Your task to perform on an android device: check data usage Image 0: 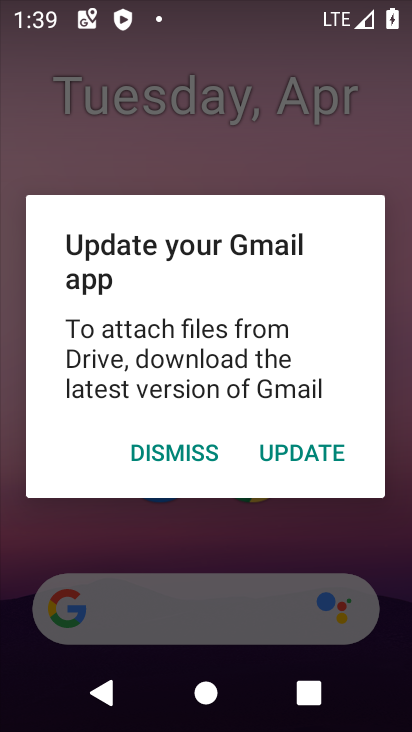
Step 0: press home button
Your task to perform on an android device: check data usage Image 1: 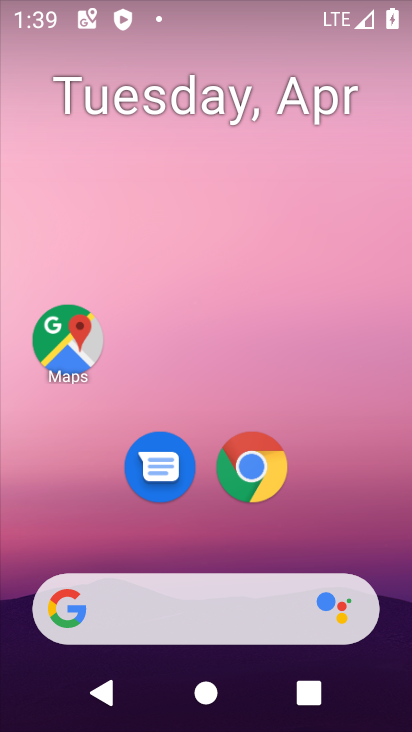
Step 1: drag from (387, 537) to (385, 168)
Your task to perform on an android device: check data usage Image 2: 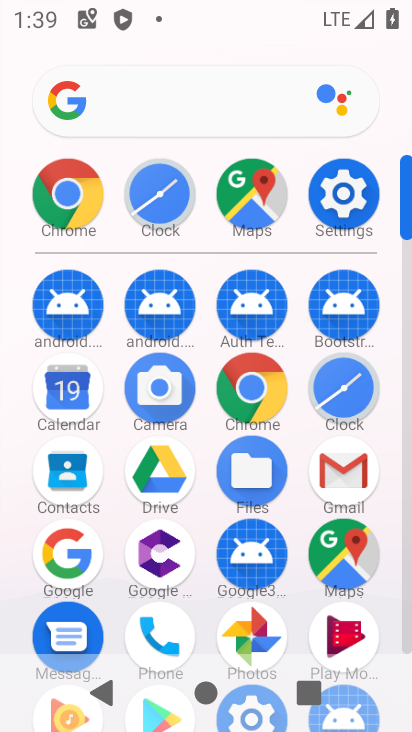
Step 2: click (337, 203)
Your task to perform on an android device: check data usage Image 3: 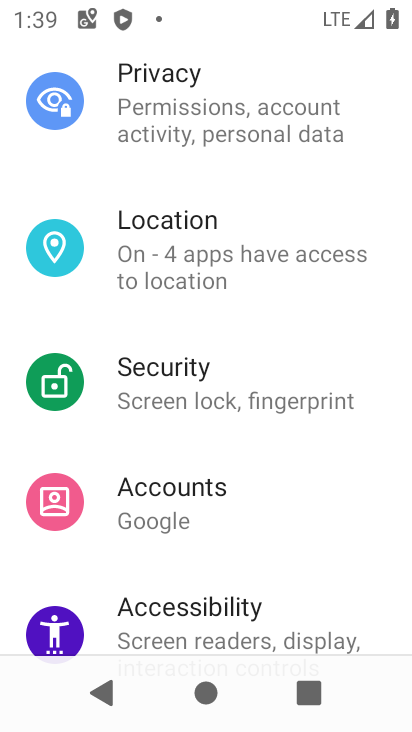
Step 3: drag from (382, 290) to (377, 432)
Your task to perform on an android device: check data usage Image 4: 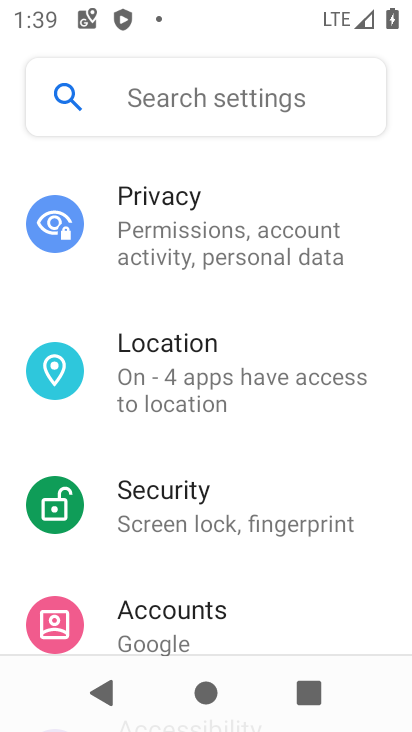
Step 4: drag from (383, 237) to (377, 467)
Your task to perform on an android device: check data usage Image 5: 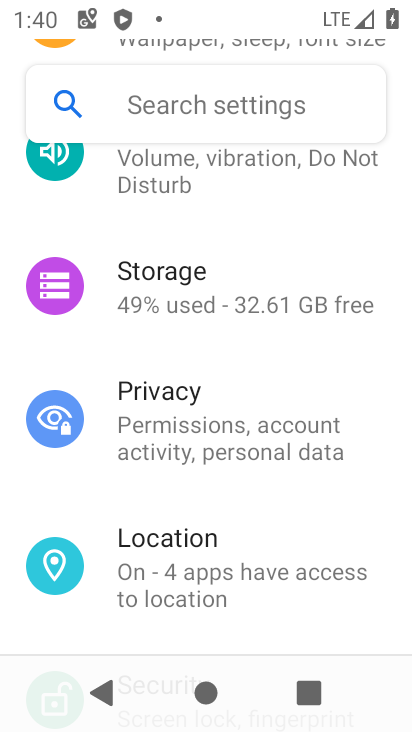
Step 5: drag from (384, 234) to (380, 449)
Your task to perform on an android device: check data usage Image 6: 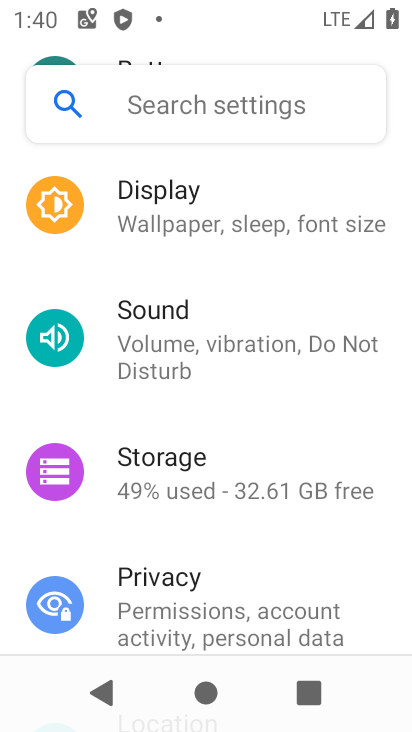
Step 6: drag from (394, 178) to (376, 362)
Your task to perform on an android device: check data usage Image 7: 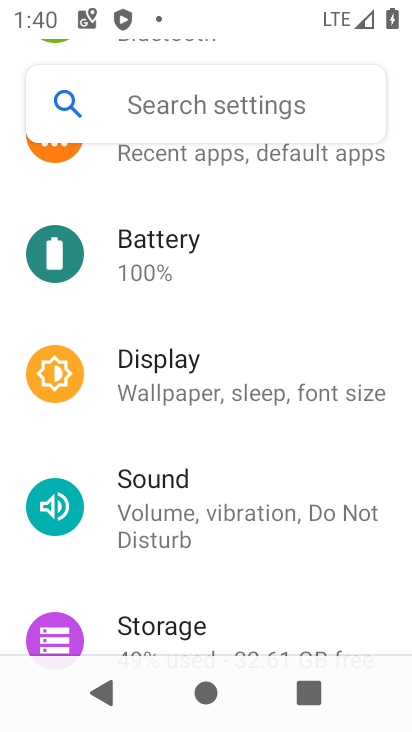
Step 7: drag from (397, 176) to (387, 369)
Your task to perform on an android device: check data usage Image 8: 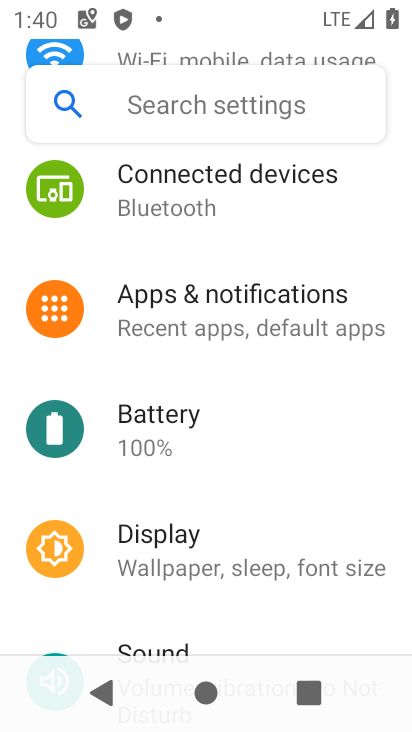
Step 8: drag from (399, 189) to (385, 425)
Your task to perform on an android device: check data usage Image 9: 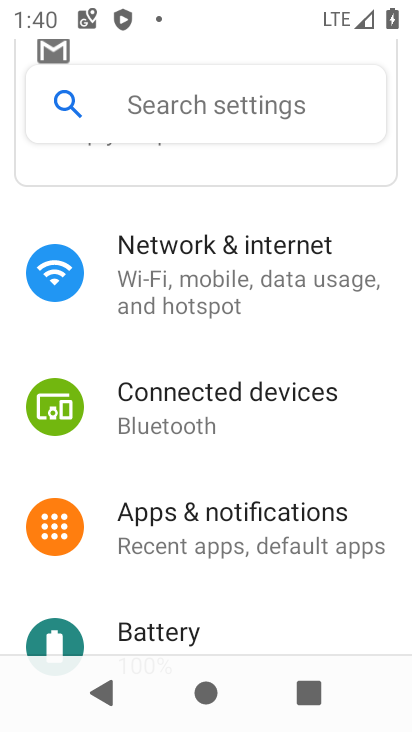
Step 9: click (240, 260)
Your task to perform on an android device: check data usage Image 10: 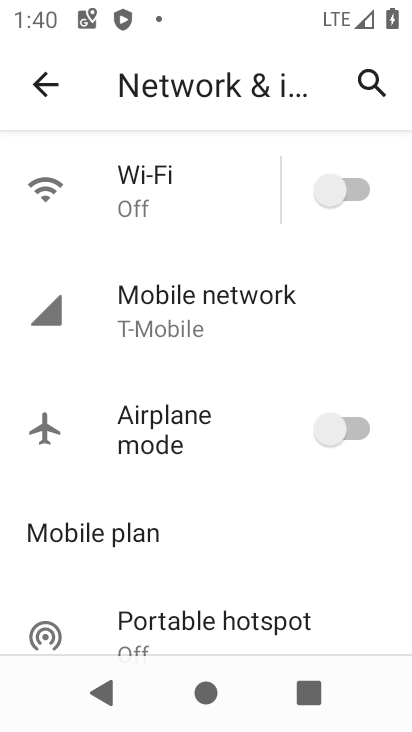
Step 10: drag from (264, 512) to (273, 297)
Your task to perform on an android device: check data usage Image 11: 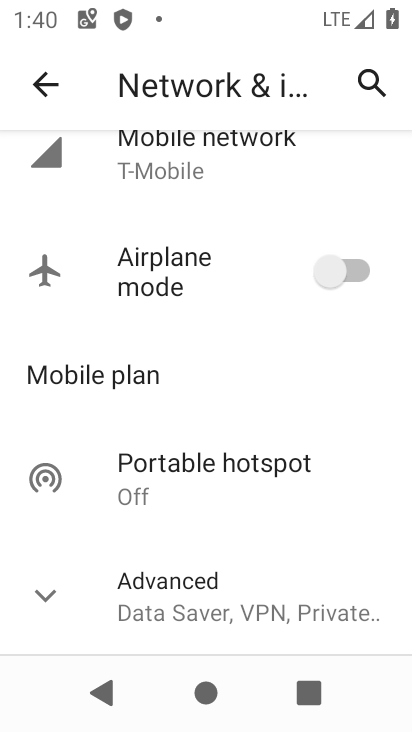
Step 11: click (200, 136)
Your task to perform on an android device: check data usage Image 12: 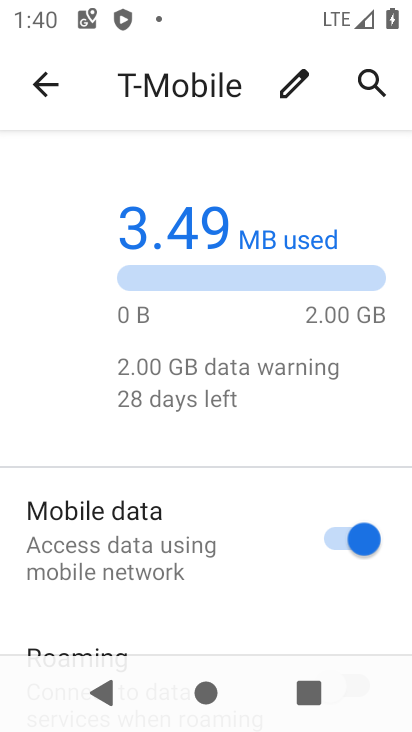
Step 12: drag from (256, 591) to (249, 301)
Your task to perform on an android device: check data usage Image 13: 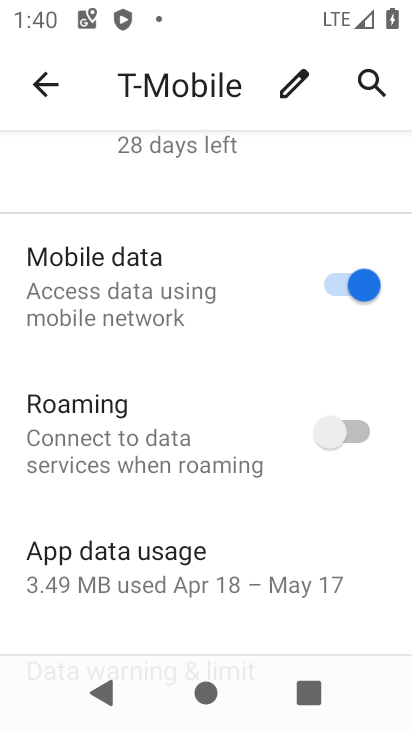
Step 13: click (171, 567)
Your task to perform on an android device: check data usage Image 14: 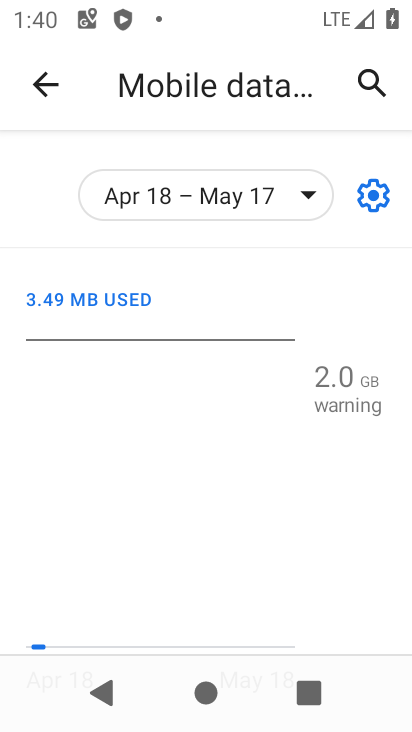
Step 14: task complete